Your task to perform on an android device: Go to Reddit.com Image 0: 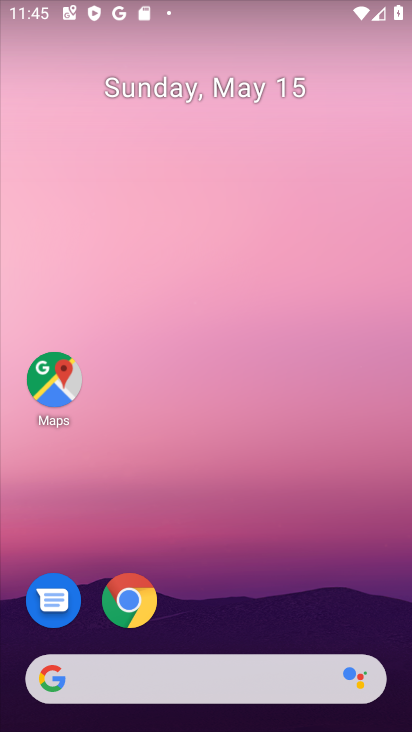
Step 0: click (108, 615)
Your task to perform on an android device: Go to Reddit.com Image 1: 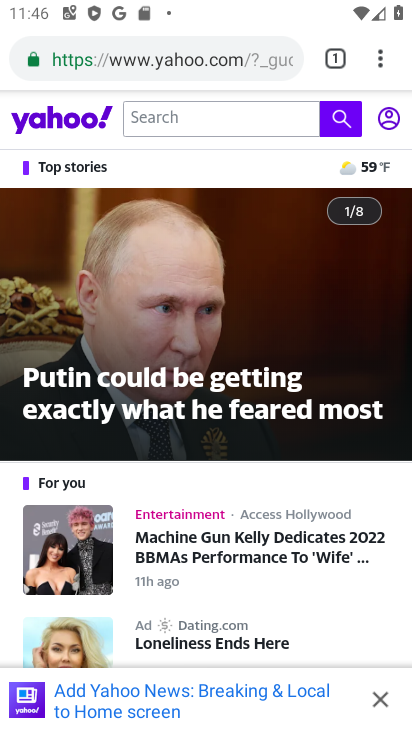
Step 1: click (187, 59)
Your task to perform on an android device: Go to Reddit.com Image 2: 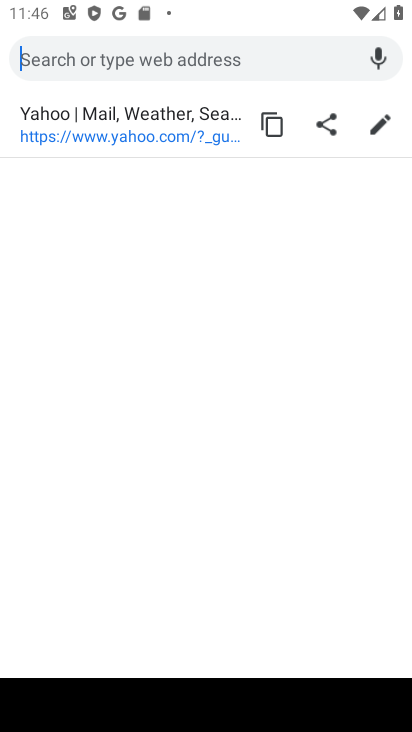
Step 2: type "reddit.com"
Your task to perform on an android device: Go to Reddit.com Image 3: 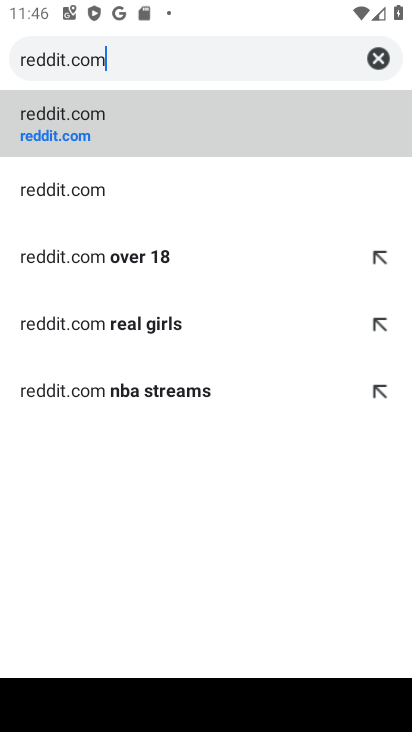
Step 3: click (157, 111)
Your task to perform on an android device: Go to Reddit.com Image 4: 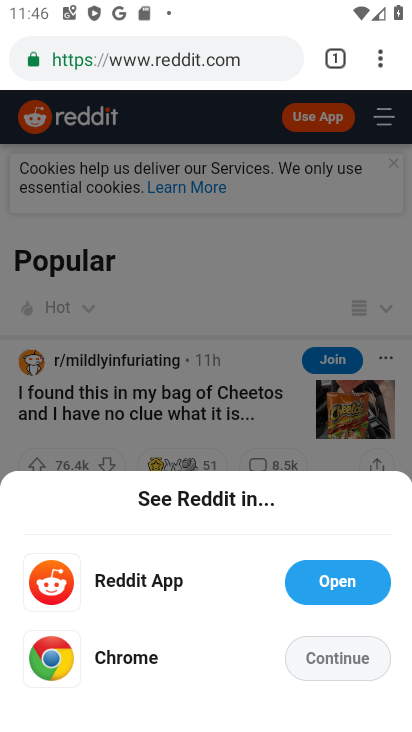
Step 4: click (335, 655)
Your task to perform on an android device: Go to Reddit.com Image 5: 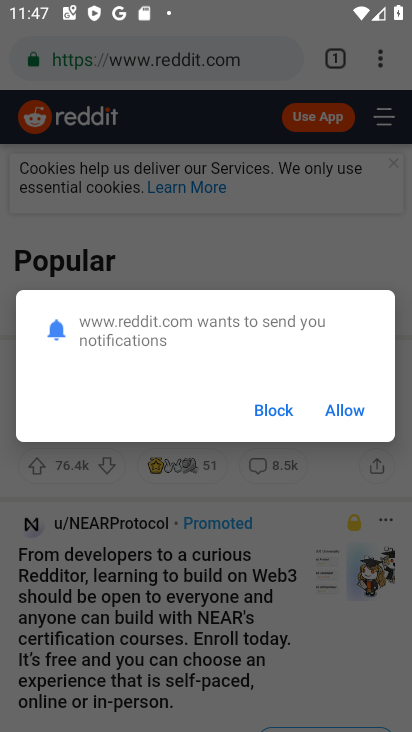
Step 5: task complete